Your task to perform on an android device: Open Android settings Image 0: 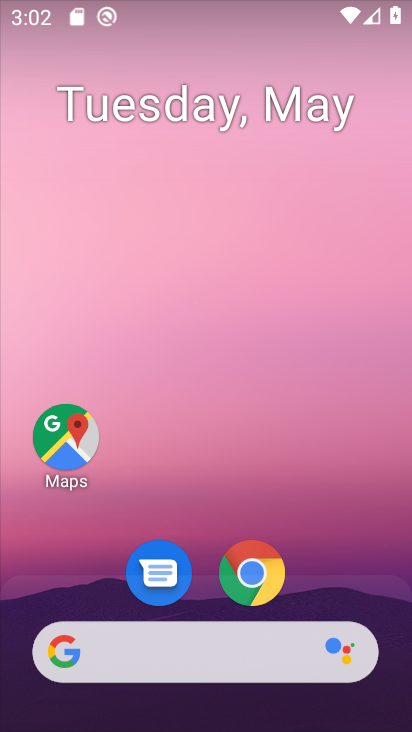
Step 0: drag from (202, 607) to (292, 50)
Your task to perform on an android device: Open Android settings Image 1: 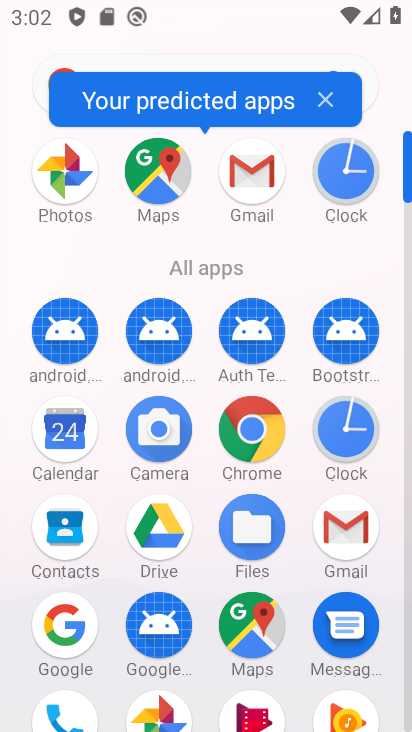
Step 1: drag from (161, 639) to (290, 81)
Your task to perform on an android device: Open Android settings Image 2: 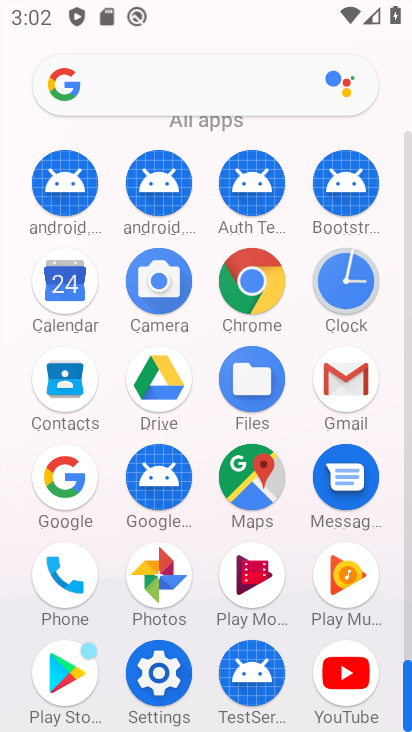
Step 2: click (159, 673)
Your task to perform on an android device: Open Android settings Image 3: 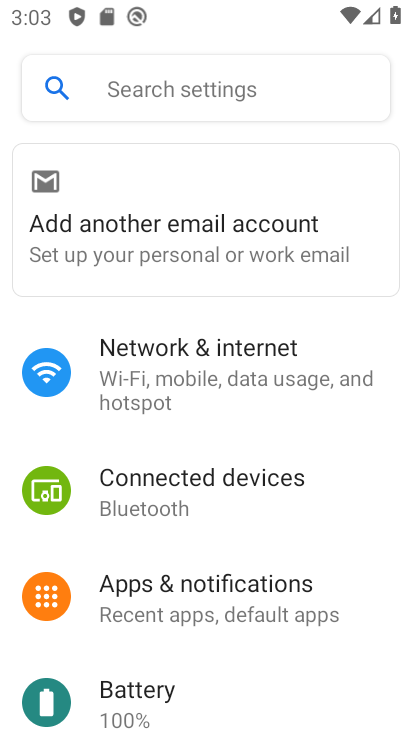
Step 3: drag from (184, 658) to (365, 64)
Your task to perform on an android device: Open Android settings Image 4: 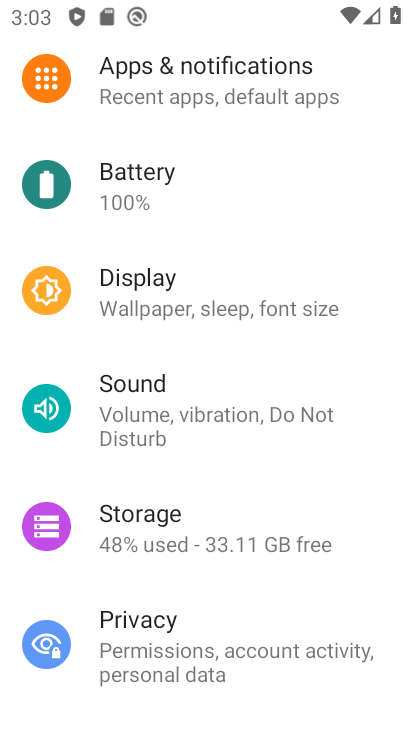
Step 4: drag from (179, 671) to (348, 4)
Your task to perform on an android device: Open Android settings Image 5: 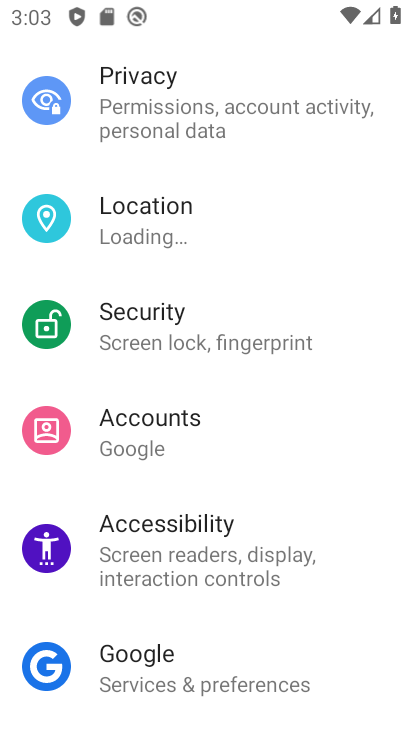
Step 5: drag from (163, 670) to (308, 54)
Your task to perform on an android device: Open Android settings Image 6: 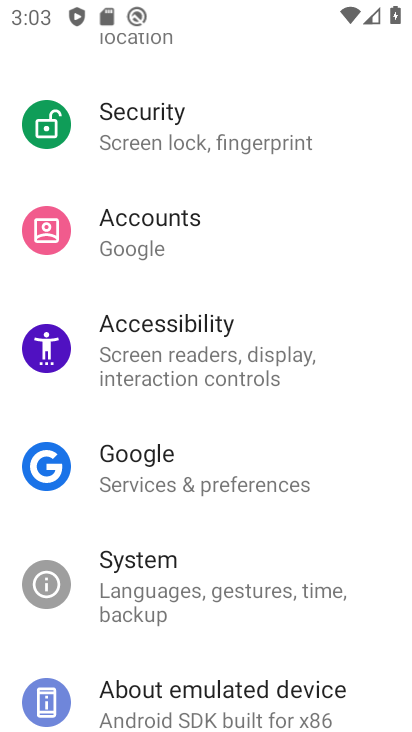
Step 6: click (146, 701)
Your task to perform on an android device: Open Android settings Image 7: 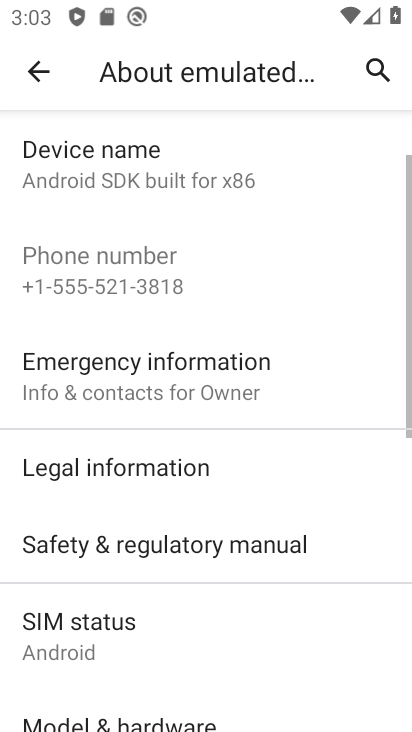
Step 7: drag from (178, 607) to (286, 179)
Your task to perform on an android device: Open Android settings Image 8: 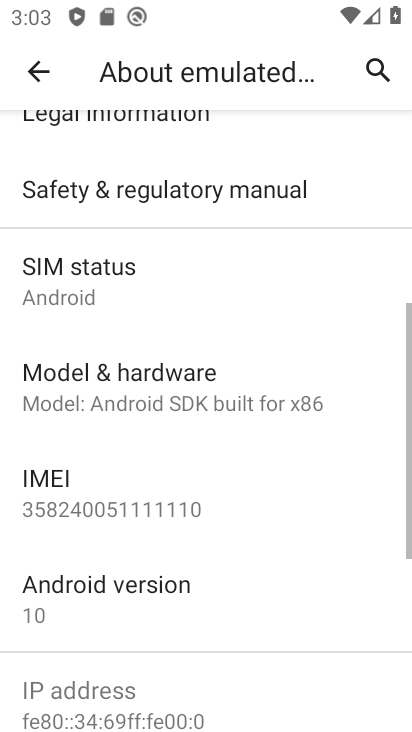
Step 8: click (108, 585)
Your task to perform on an android device: Open Android settings Image 9: 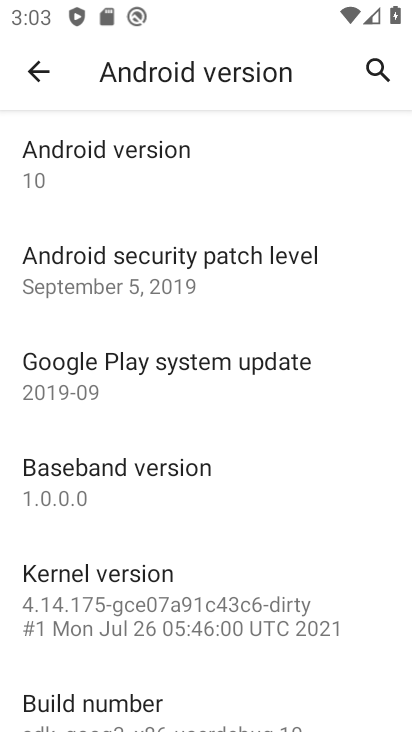
Step 9: task complete